Your task to perform on an android device: open app "LinkedIn" Image 0: 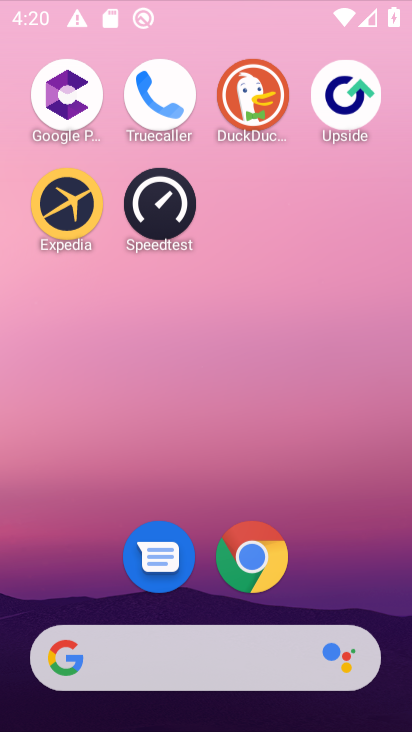
Step 0: click (276, 312)
Your task to perform on an android device: open app "LinkedIn" Image 1: 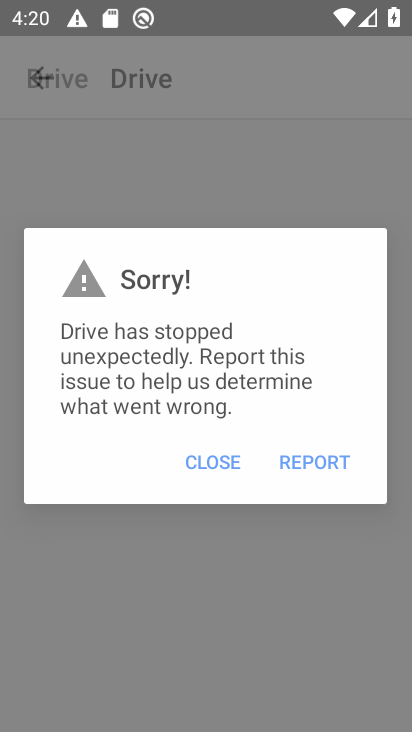
Step 1: press home button
Your task to perform on an android device: open app "LinkedIn" Image 2: 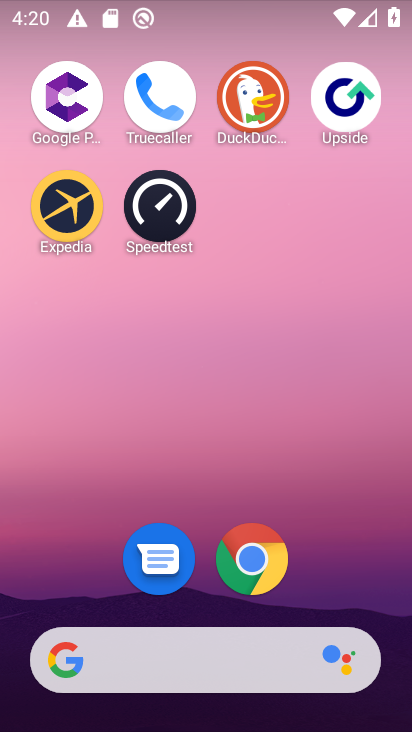
Step 2: drag from (202, 581) to (184, 27)
Your task to perform on an android device: open app "LinkedIn" Image 3: 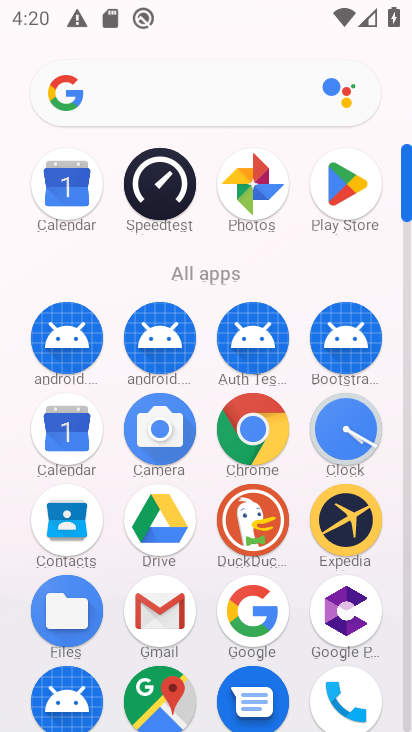
Step 3: click (351, 201)
Your task to perform on an android device: open app "LinkedIn" Image 4: 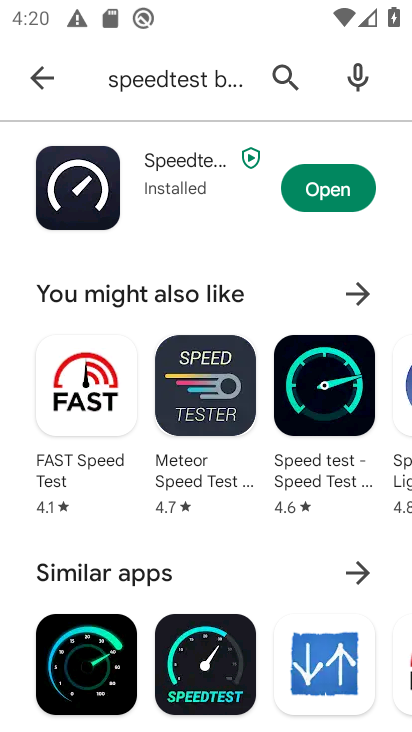
Step 4: click (220, 98)
Your task to perform on an android device: open app "LinkedIn" Image 5: 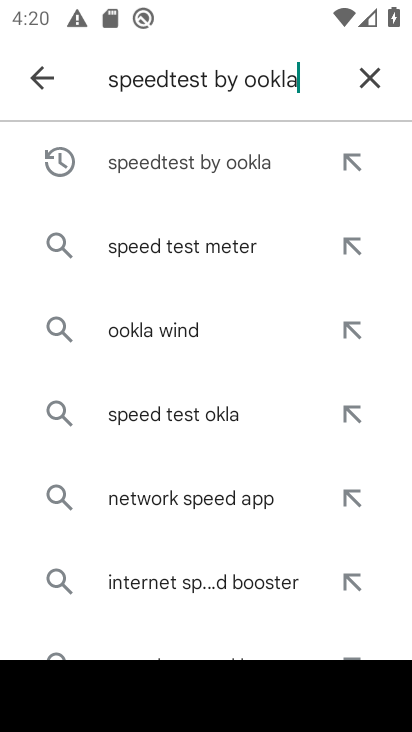
Step 5: click (375, 86)
Your task to perform on an android device: open app "LinkedIn" Image 6: 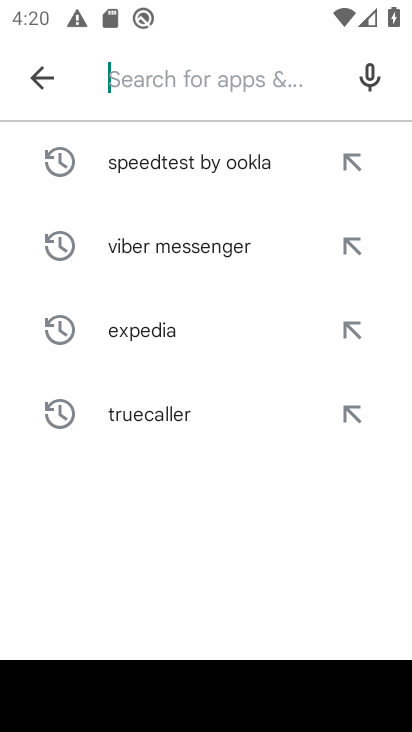
Step 6: type "linkedin"
Your task to perform on an android device: open app "LinkedIn" Image 7: 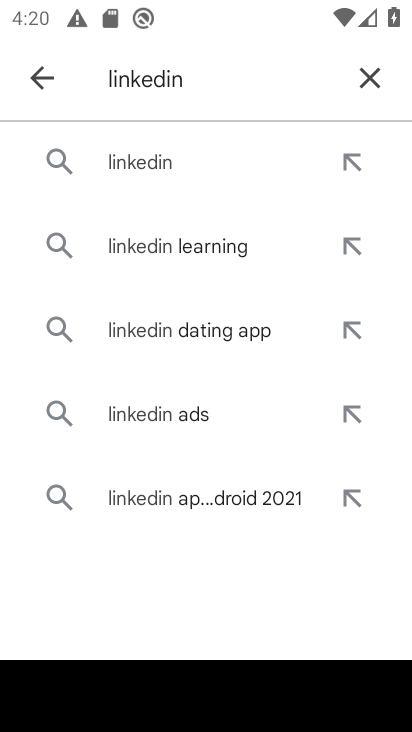
Step 7: click (193, 161)
Your task to perform on an android device: open app "LinkedIn" Image 8: 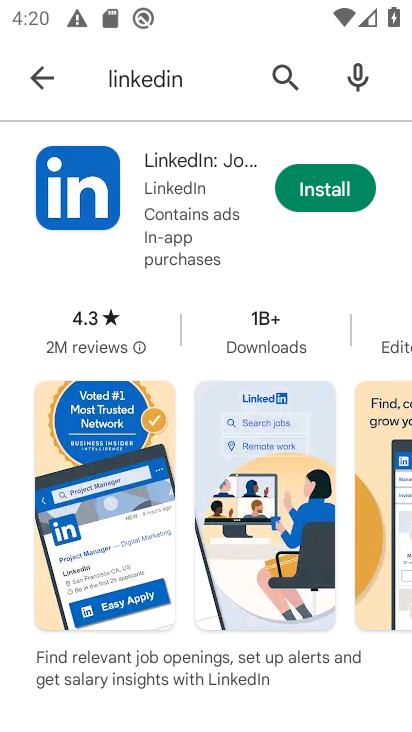
Step 8: task complete